Your task to perform on an android device: read, delete, or share a saved page in the chrome app Image 0: 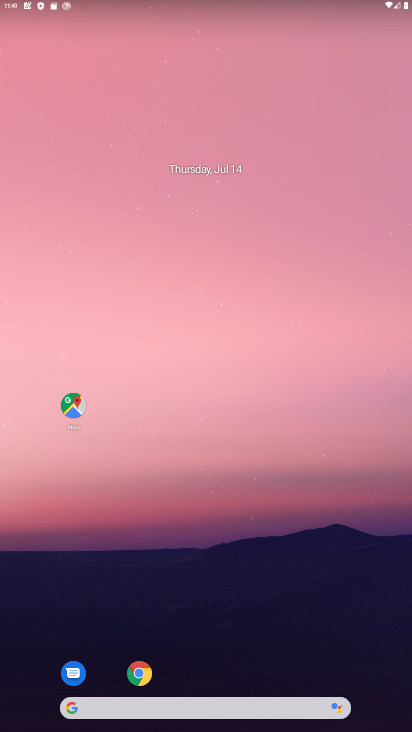
Step 0: click (151, 678)
Your task to perform on an android device: read, delete, or share a saved page in the chrome app Image 1: 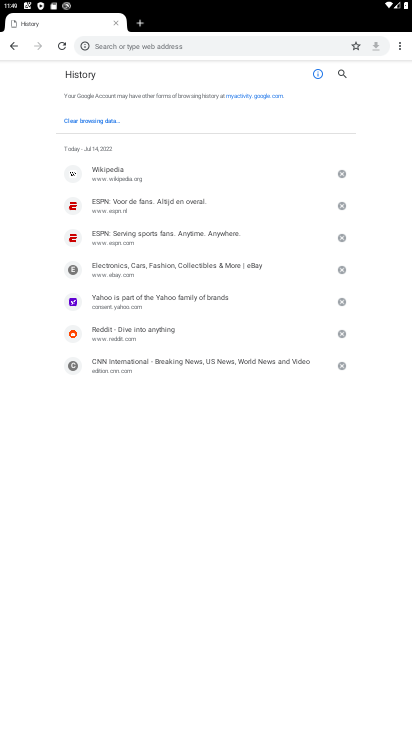
Step 1: click (400, 43)
Your task to perform on an android device: read, delete, or share a saved page in the chrome app Image 2: 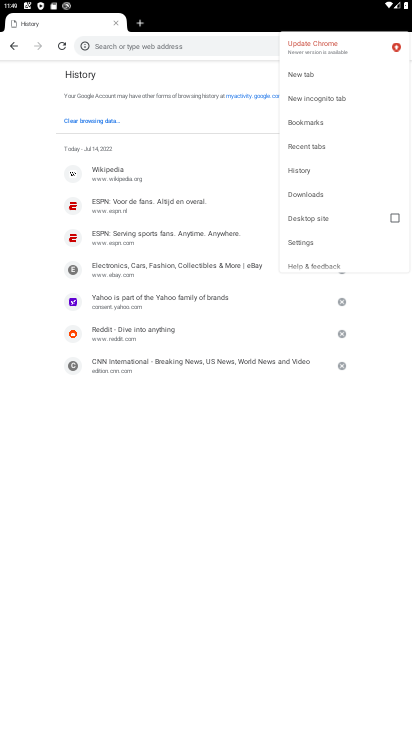
Step 2: click (313, 197)
Your task to perform on an android device: read, delete, or share a saved page in the chrome app Image 3: 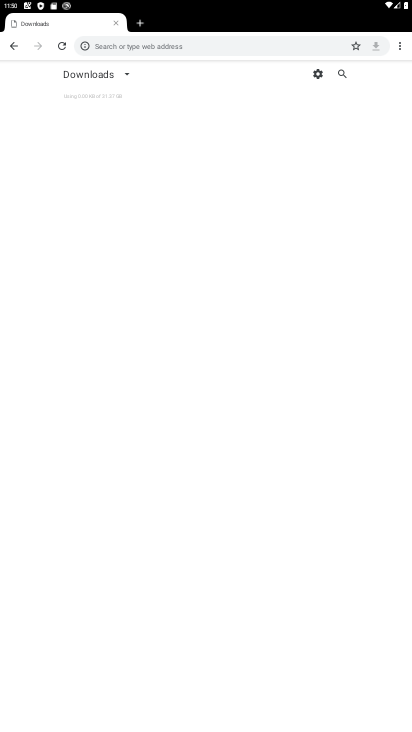
Step 3: task complete